Your task to perform on an android device: Show me popular games on the Play Store Image 0: 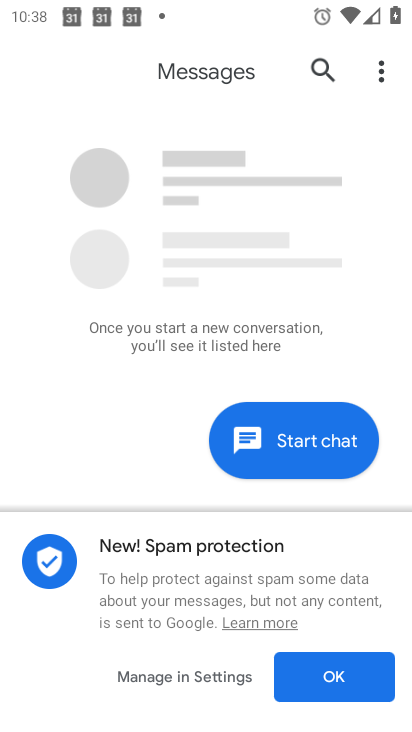
Step 0: press home button
Your task to perform on an android device: Show me popular games on the Play Store Image 1: 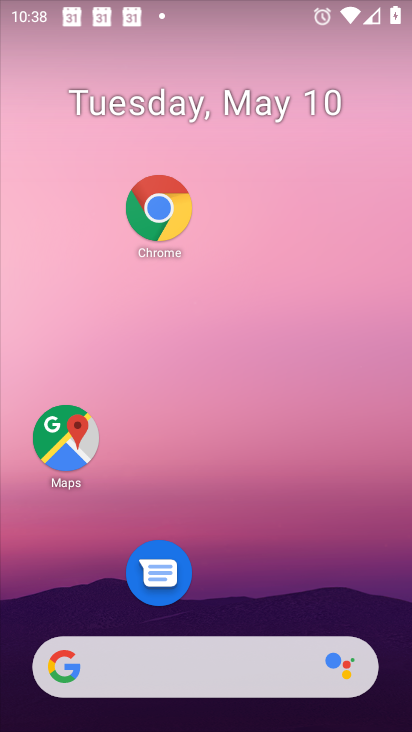
Step 1: drag from (278, 685) to (288, 322)
Your task to perform on an android device: Show me popular games on the Play Store Image 2: 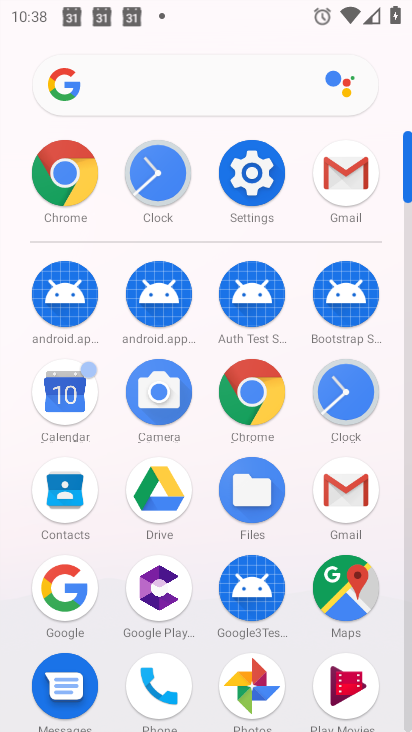
Step 2: drag from (202, 543) to (235, 328)
Your task to perform on an android device: Show me popular games on the Play Store Image 3: 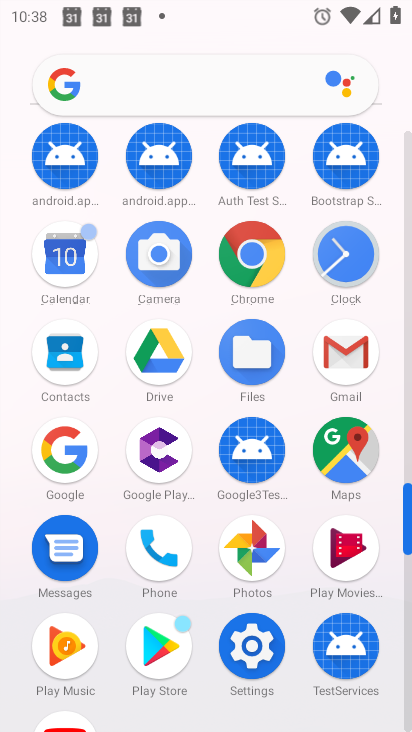
Step 3: click (173, 636)
Your task to perform on an android device: Show me popular games on the Play Store Image 4: 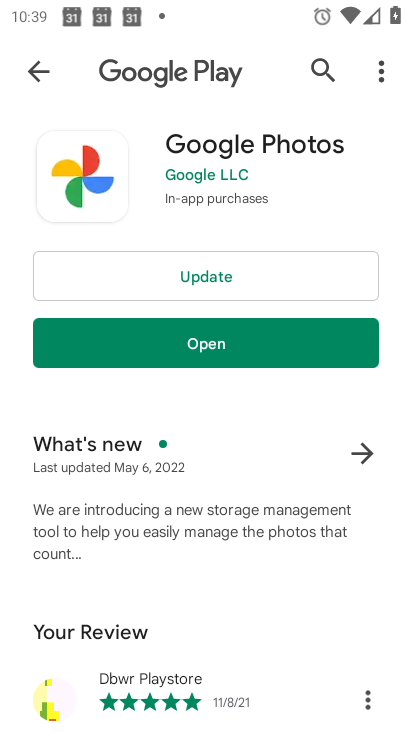
Step 4: click (325, 63)
Your task to perform on an android device: Show me popular games on the Play Store Image 5: 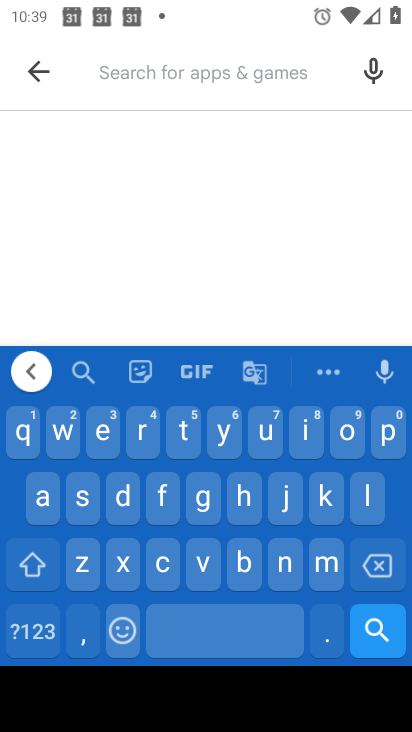
Step 5: click (381, 439)
Your task to perform on an android device: Show me popular games on the Play Store Image 6: 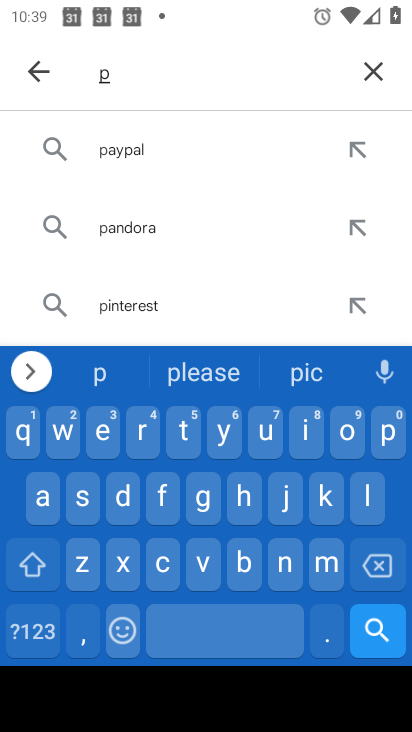
Step 6: click (350, 441)
Your task to perform on an android device: Show me popular games on the Play Store Image 7: 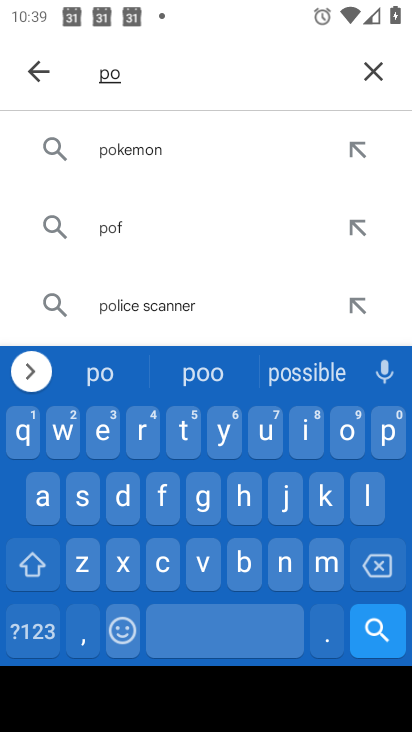
Step 7: click (379, 437)
Your task to perform on an android device: Show me popular games on the Play Store Image 8: 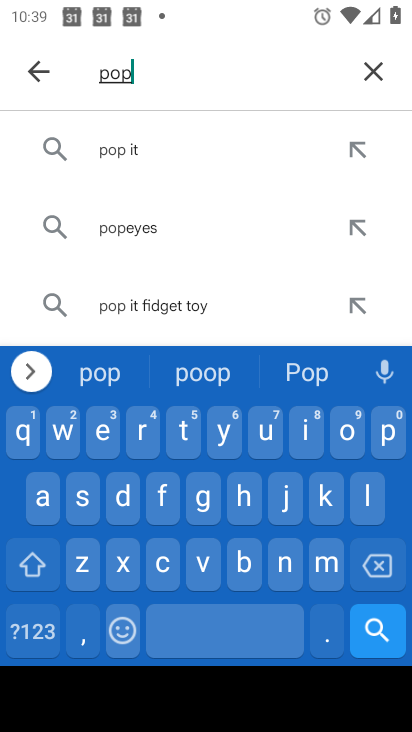
Step 8: click (267, 436)
Your task to perform on an android device: Show me popular games on the Play Store Image 9: 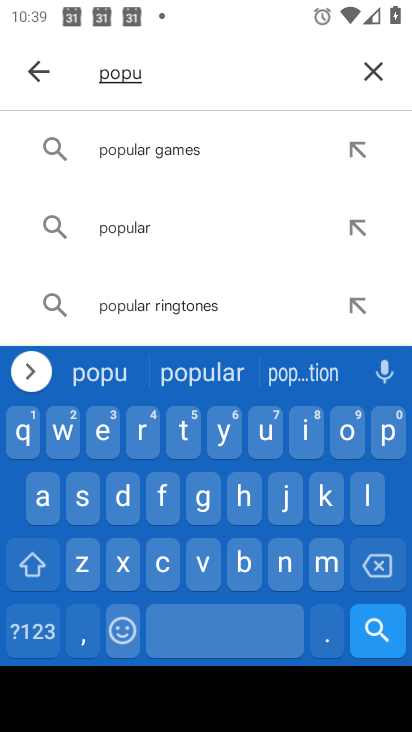
Step 9: click (173, 154)
Your task to perform on an android device: Show me popular games on the Play Store Image 10: 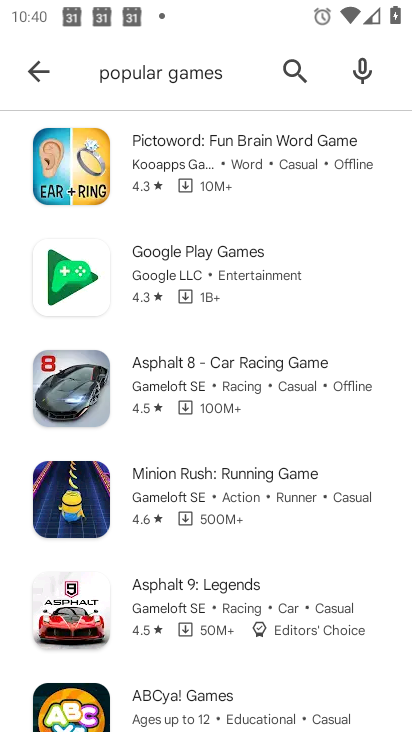
Step 10: task complete